Your task to perform on an android device: Go to Reddit.com Image 0: 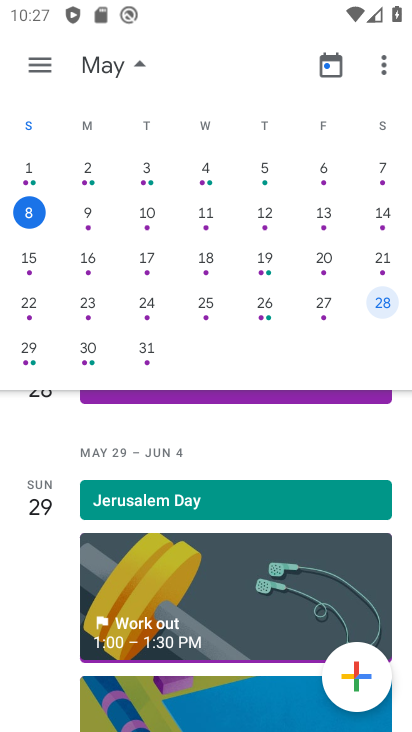
Step 0: press home button
Your task to perform on an android device: Go to Reddit.com Image 1: 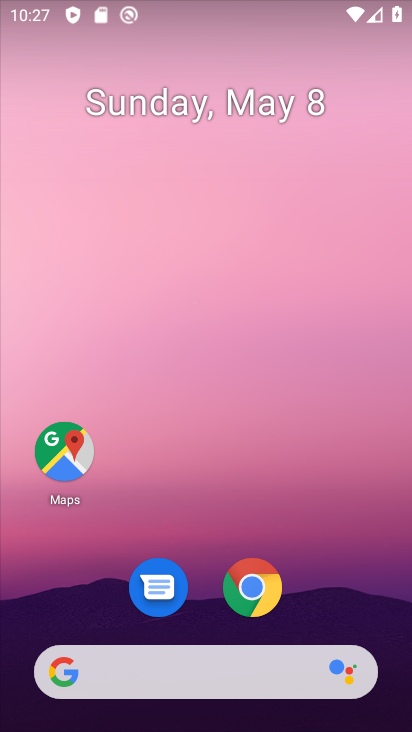
Step 1: drag from (326, 608) to (104, 8)
Your task to perform on an android device: Go to Reddit.com Image 2: 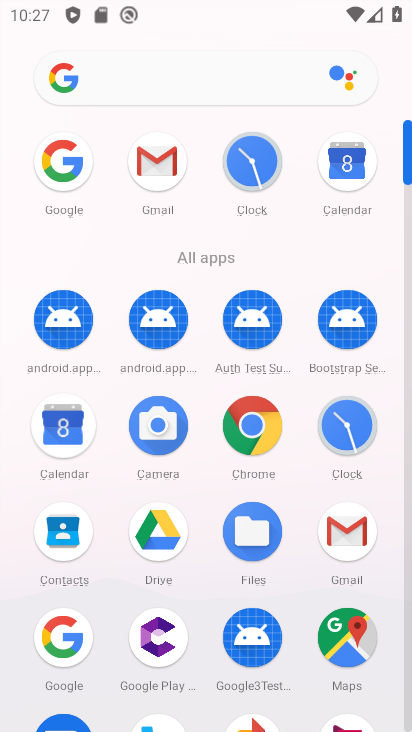
Step 2: click (261, 429)
Your task to perform on an android device: Go to Reddit.com Image 3: 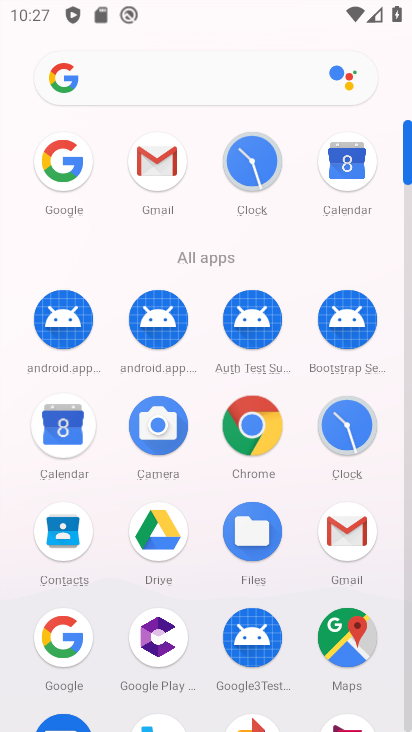
Step 3: click (261, 429)
Your task to perform on an android device: Go to Reddit.com Image 4: 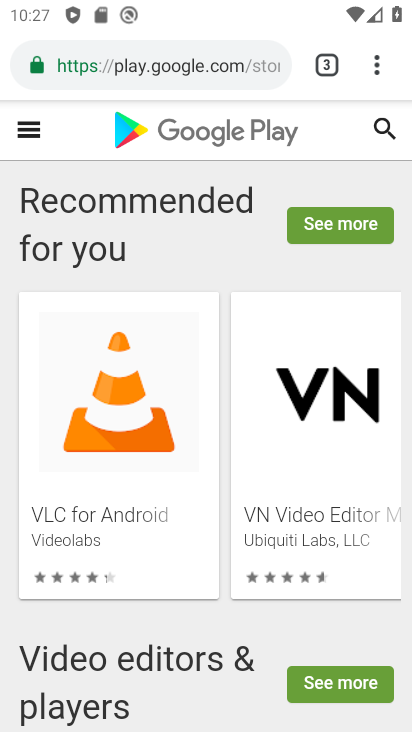
Step 4: drag from (370, 66) to (134, 123)
Your task to perform on an android device: Go to Reddit.com Image 5: 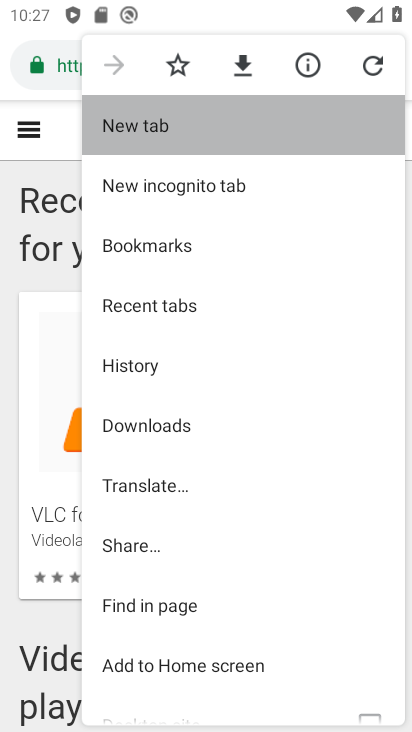
Step 5: click (134, 123)
Your task to perform on an android device: Go to Reddit.com Image 6: 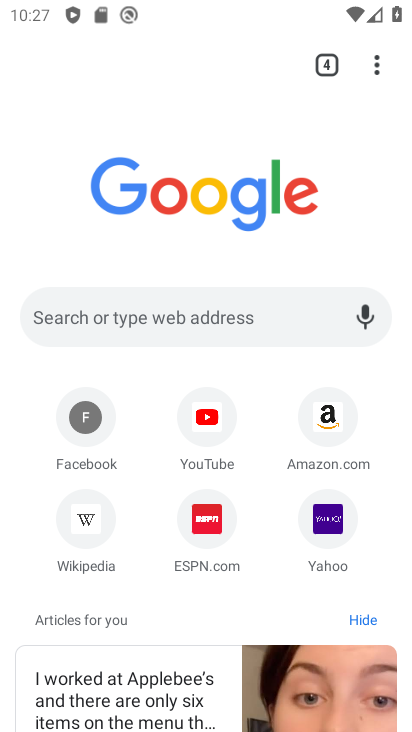
Step 6: click (66, 325)
Your task to perform on an android device: Go to Reddit.com Image 7: 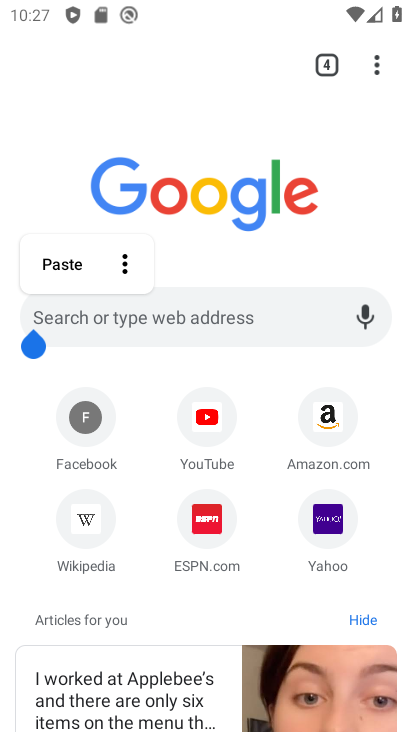
Step 7: click (70, 321)
Your task to perform on an android device: Go to Reddit.com Image 8: 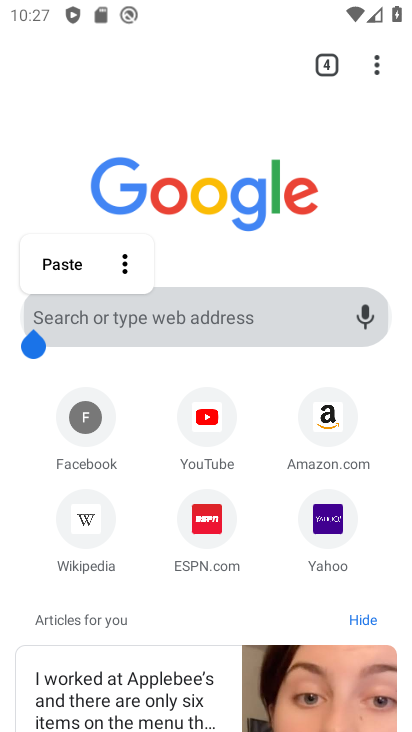
Step 8: click (70, 321)
Your task to perform on an android device: Go to Reddit.com Image 9: 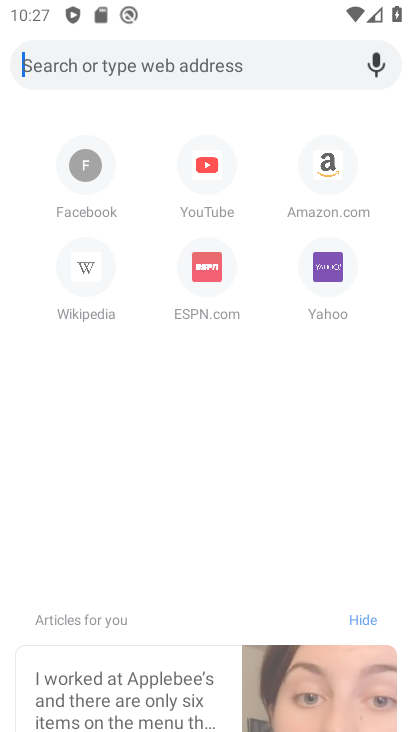
Step 9: click (70, 321)
Your task to perform on an android device: Go to Reddit.com Image 10: 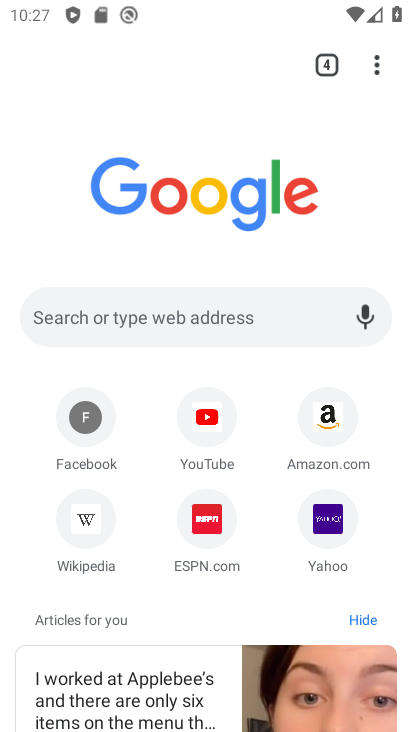
Step 10: click (107, 319)
Your task to perform on an android device: Go to Reddit.com Image 11: 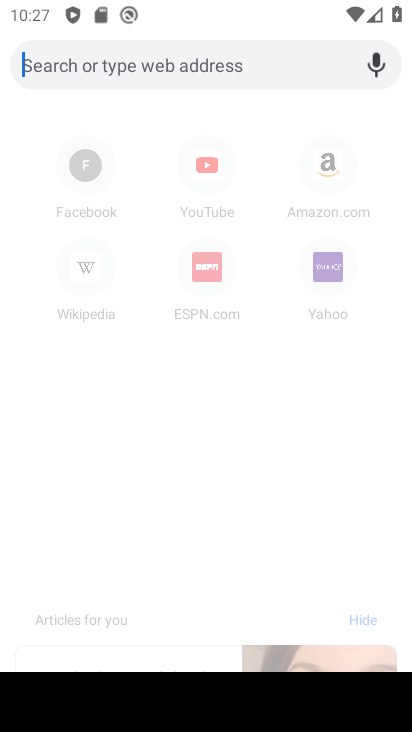
Step 11: type "reddit.com"
Your task to perform on an android device: Go to Reddit.com Image 12: 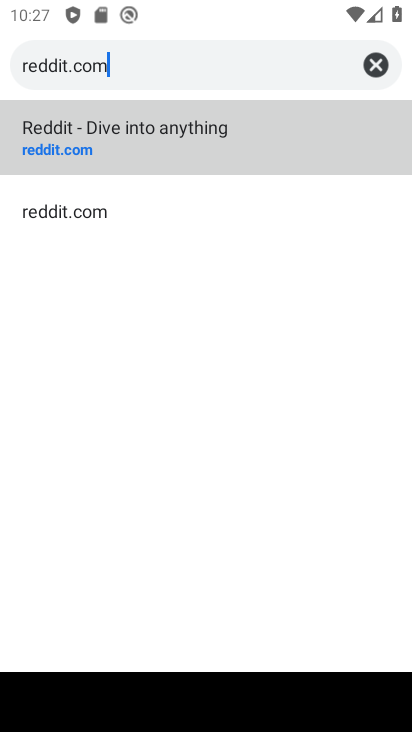
Step 12: click (70, 152)
Your task to perform on an android device: Go to Reddit.com Image 13: 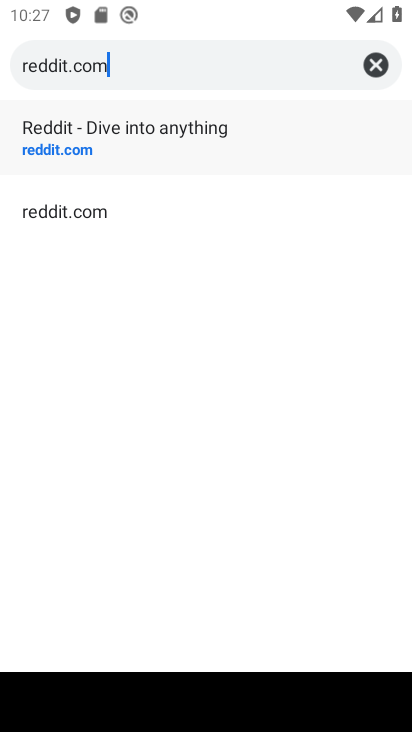
Step 13: click (70, 152)
Your task to perform on an android device: Go to Reddit.com Image 14: 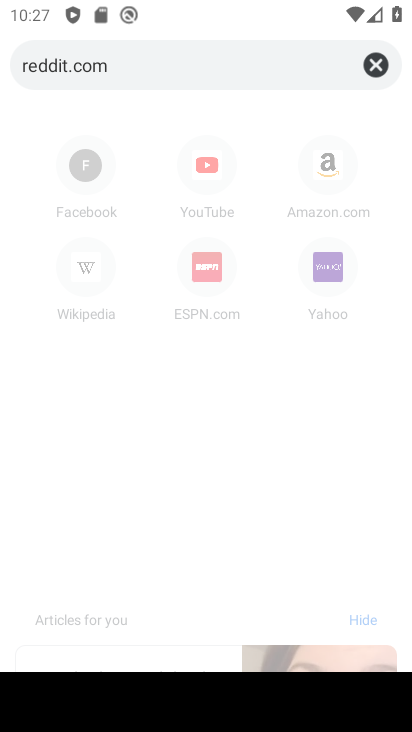
Step 14: click (70, 152)
Your task to perform on an android device: Go to Reddit.com Image 15: 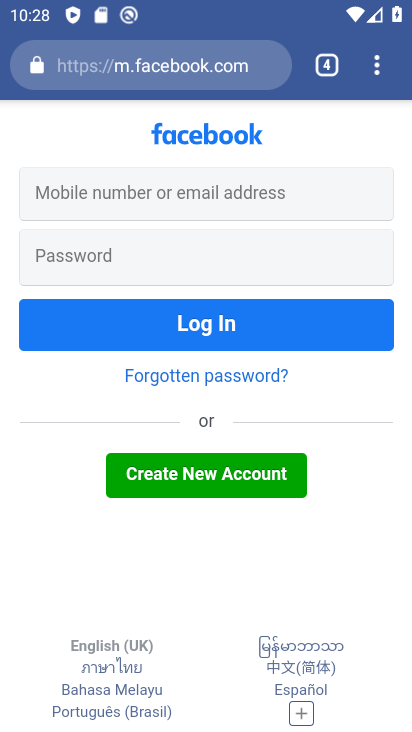
Step 15: task complete